Your task to perform on an android device: all mails in gmail Image 0: 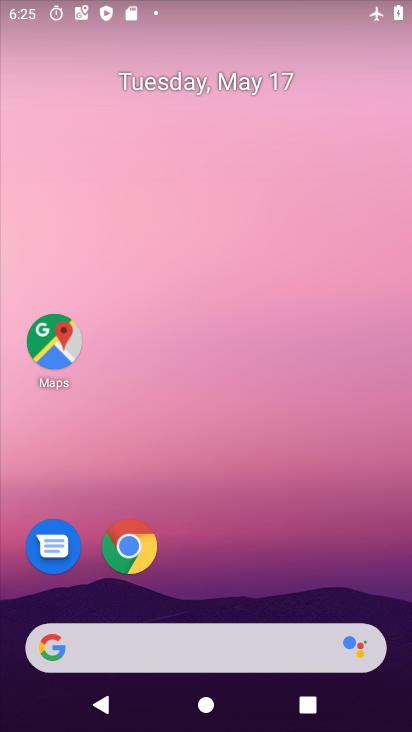
Step 0: drag from (175, 595) to (213, 0)
Your task to perform on an android device: all mails in gmail Image 1: 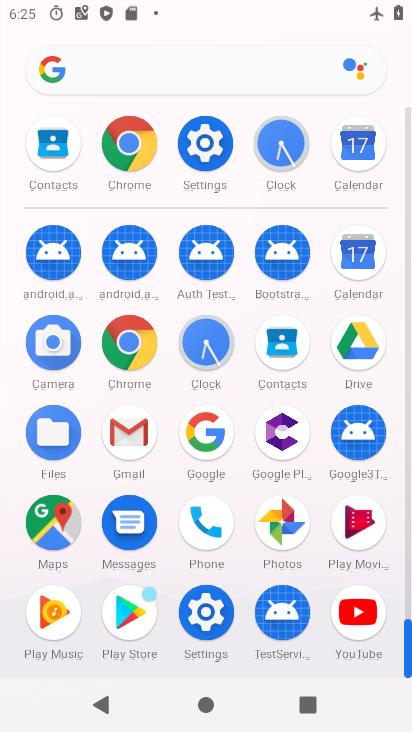
Step 1: click (119, 474)
Your task to perform on an android device: all mails in gmail Image 2: 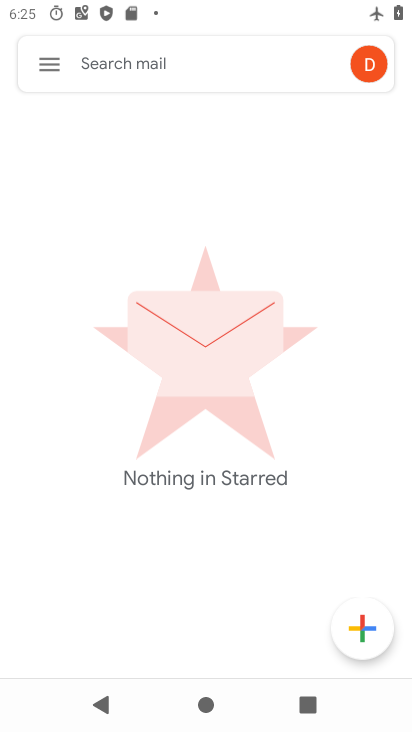
Step 2: click (44, 71)
Your task to perform on an android device: all mails in gmail Image 3: 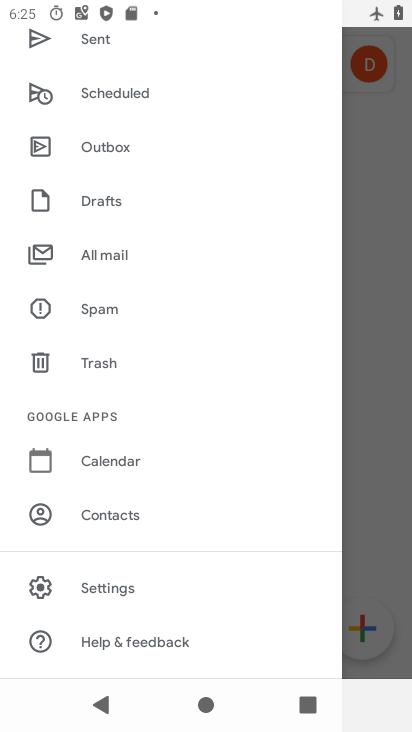
Step 3: click (123, 264)
Your task to perform on an android device: all mails in gmail Image 4: 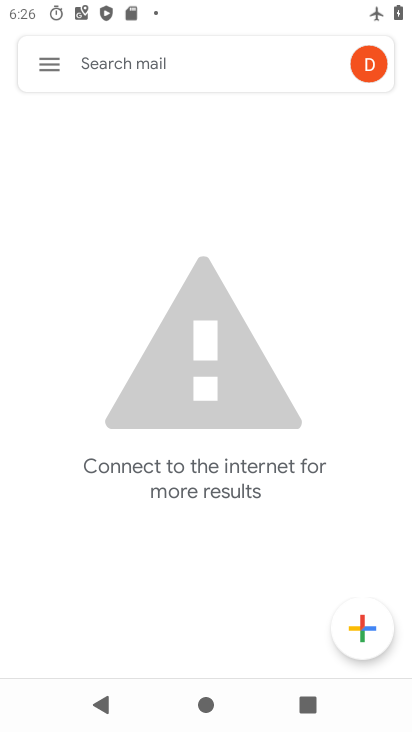
Step 4: task complete